Your task to perform on an android device: Go to Google Image 0: 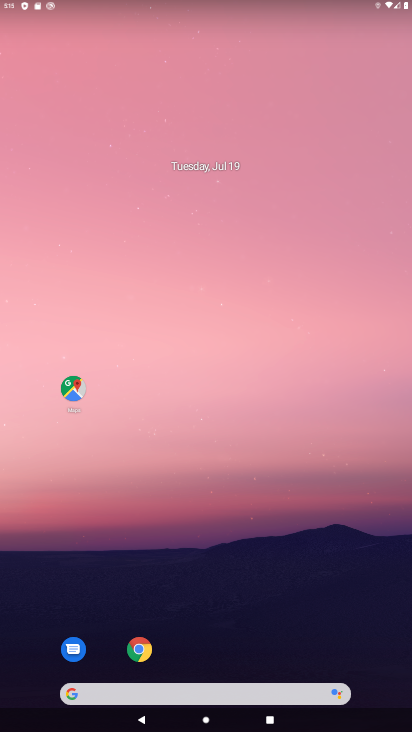
Step 0: drag from (287, 606) to (235, 92)
Your task to perform on an android device: Go to Google Image 1: 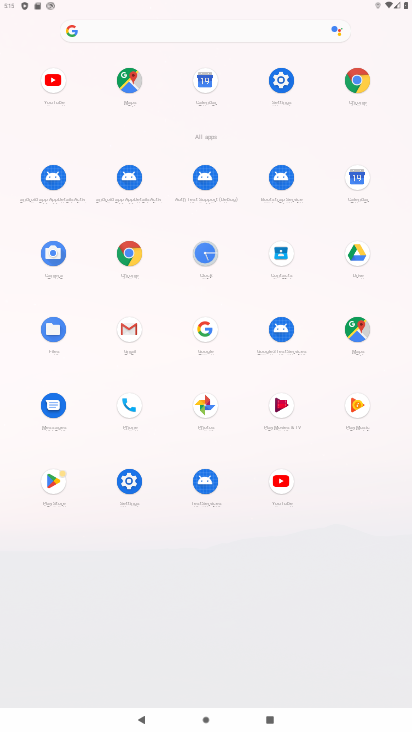
Step 1: click (208, 333)
Your task to perform on an android device: Go to Google Image 2: 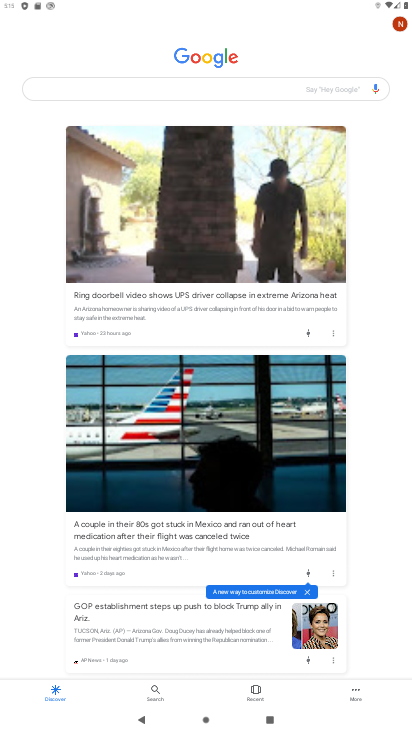
Step 2: task complete